Your task to perform on an android device: Do I have any events tomorrow? Image 0: 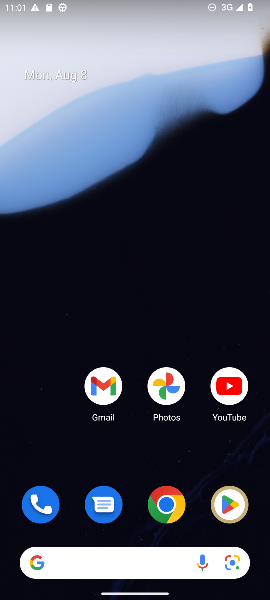
Step 0: drag from (118, 473) to (130, 26)
Your task to perform on an android device: Do I have any events tomorrow? Image 1: 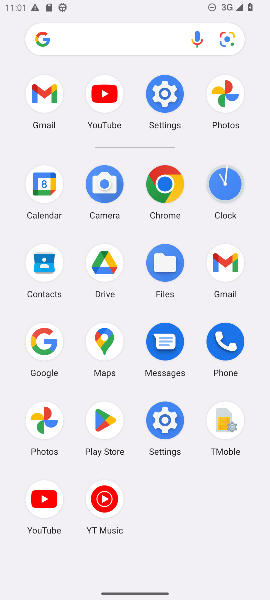
Step 1: click (49, 202)
Your task to perform on an android device: Do I have any events tomorrow? Image 2: 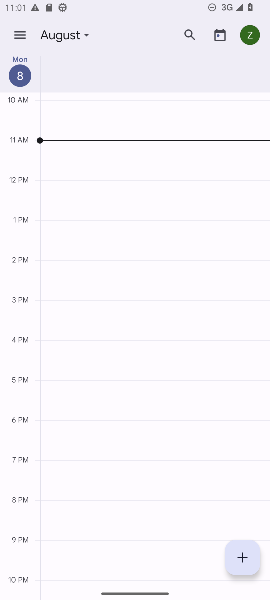
Step 2: click (20, 28)
Your task to perform on an android device: Do I have any events tomorrow? Image 3: 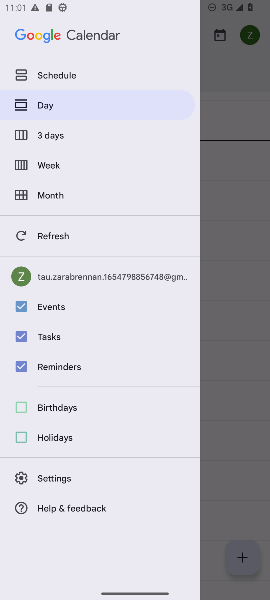
Step 3: click (34, 333)
Your task to perform on an android device: Do I have any events tomorrow? Image 4: 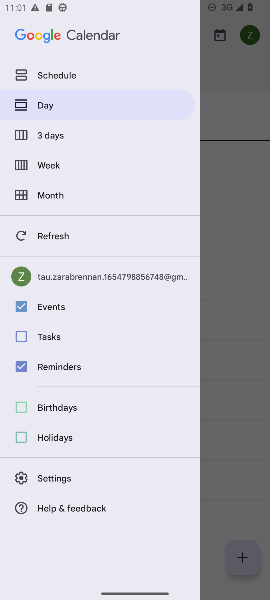
Step 4: click (39, 368)
Your task to perform on an android device: Do I have any events tomorrow? Image 5: 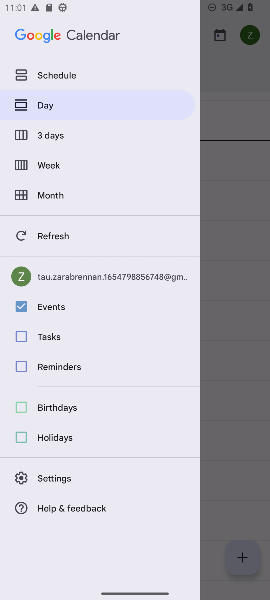
Step 5: click (66, 131)
Your task to perform on an android device: Do I have any events tomorrow? Image 6: 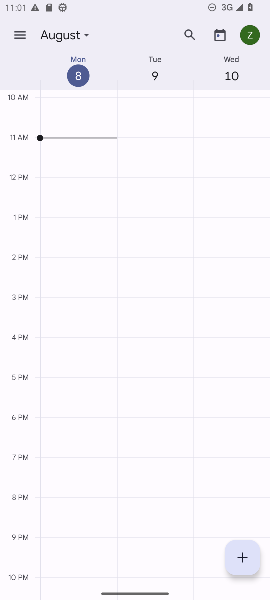
Step 6: task complete